Your task to perform on an android device: Search for Italian restaurants on Maps Image 0: 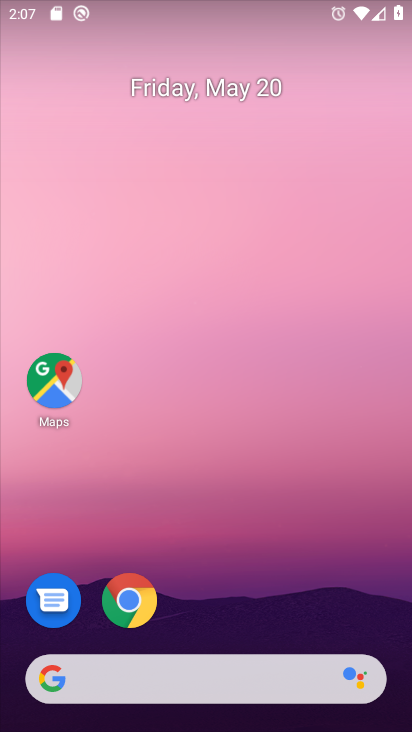
Step 0: click (72, 378)
Your task to perform on an android device: Search for Italian restaurants on Maps Image 1: 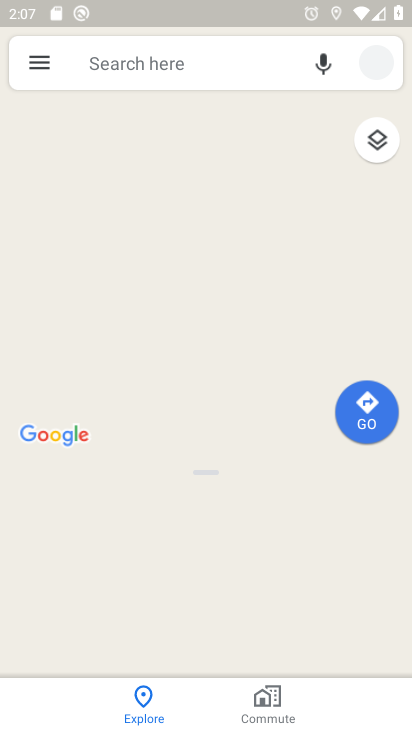
Step 1: click (192, 66)
Your task to perform on an android device: Search for Italian restaurants on Maps Image 2: 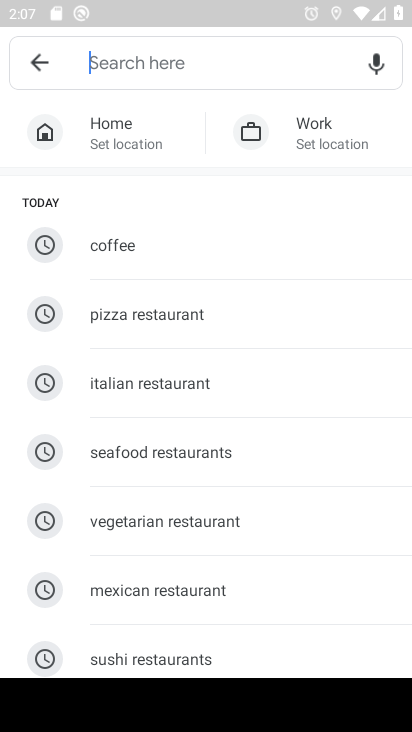
Step 2: type "italian restaurants"
Your task to perform on an android device: Search for Italian restaurants on Maps Image 3: 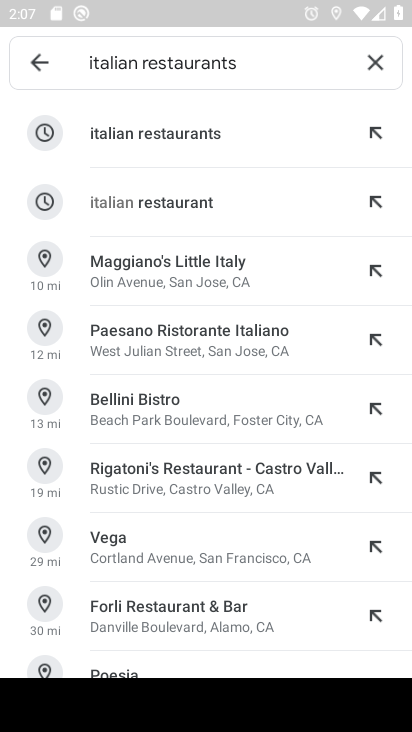
Step 3: click (150, 145)
Your task to perform on an android device: Search for Italian restaurants on Maps Image 4: 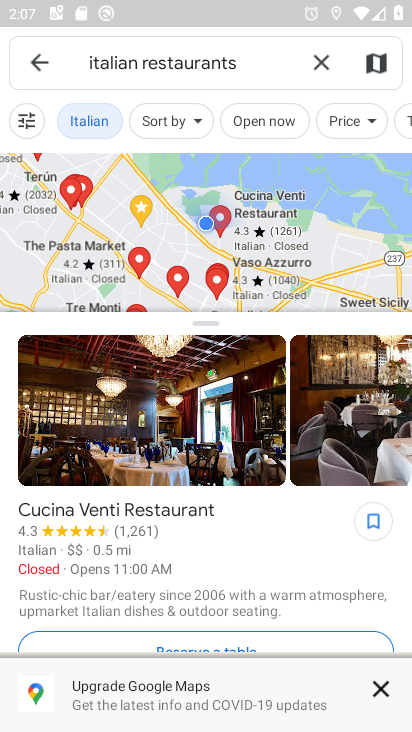
Step 4: task complete